Your task to perform on an android device: Open Yahoo.com Image 0: 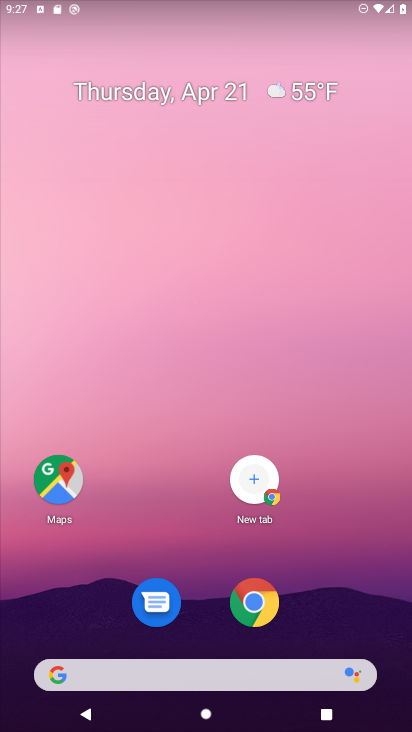
Step 0: click (253, 602)
Your task to perform on an android device: Open Yahoo.com Image 1: 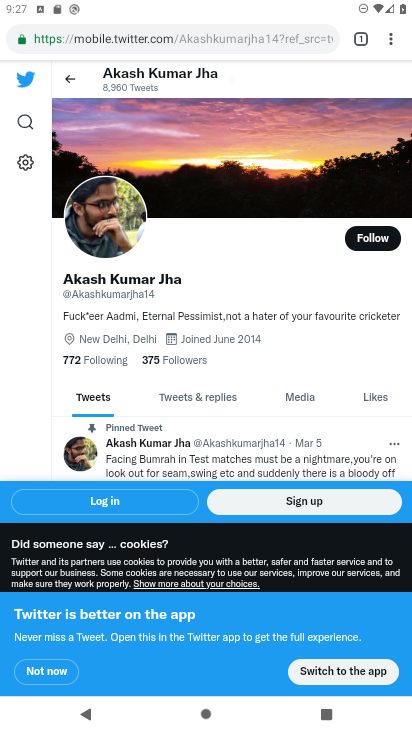
Step 1: click (394, 39)
Your task to perform on an android device: Open Yahoo.com Image 2: 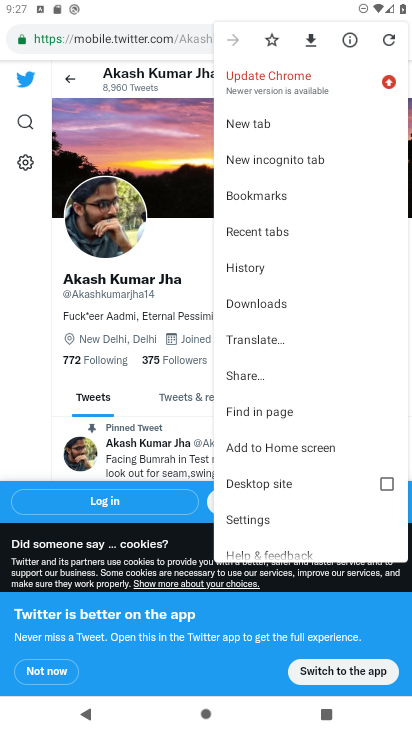
Step 2: click (295, 131)
Your task to perform on an android device: Open Yahoo.com Image 3: 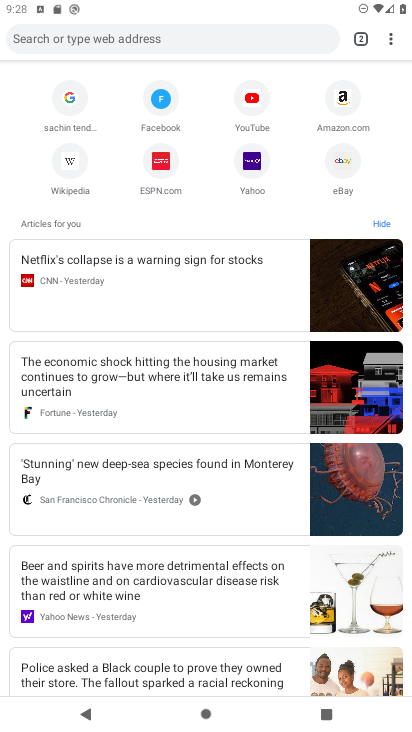
Step 3: click (253, 164)
Your task to perform on an android device: Open Yahoo.com Image 4: 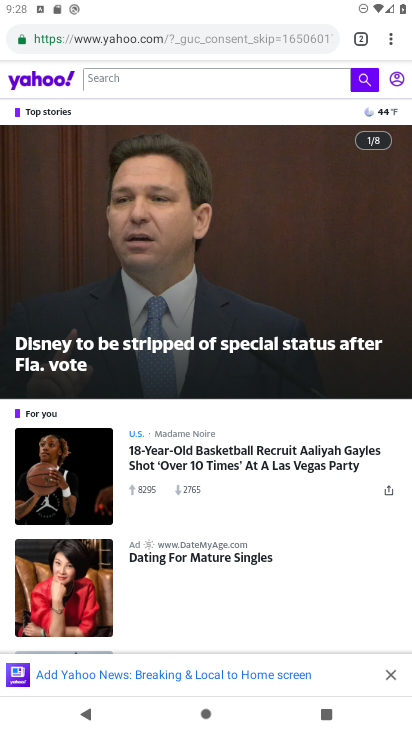
Step 4: task complete